Your task to perform on an android device: Open sound settings Image 0: 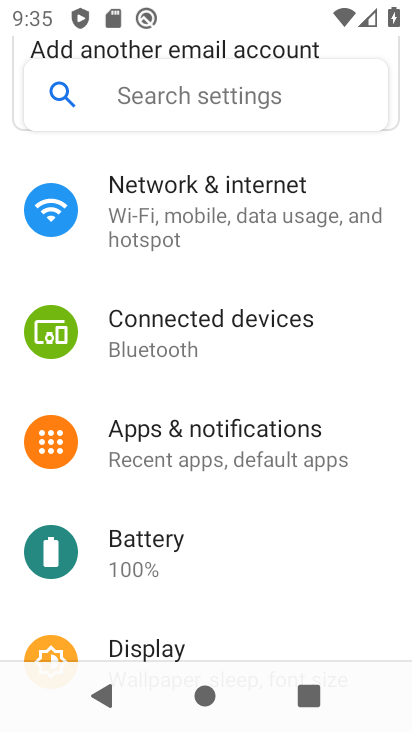
Step 0: drag from (190, 561) to (203, 410)
Your task to perform on an android device: Open sound settings Image 1: 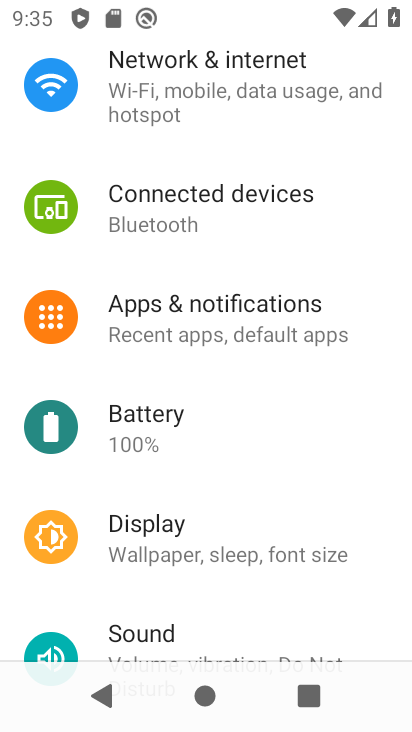
Step 1: click (153, 618)
Your task to perform on an android device: Open sound settings Image 2: 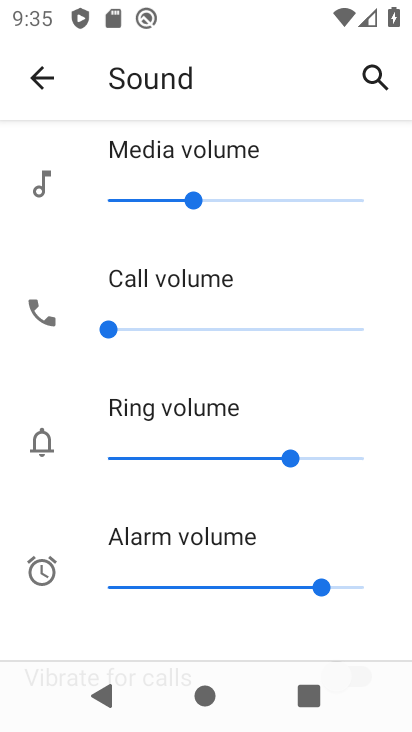
Step 2: task complete